Your task to perform on an android device: toggle wifi Image 0: 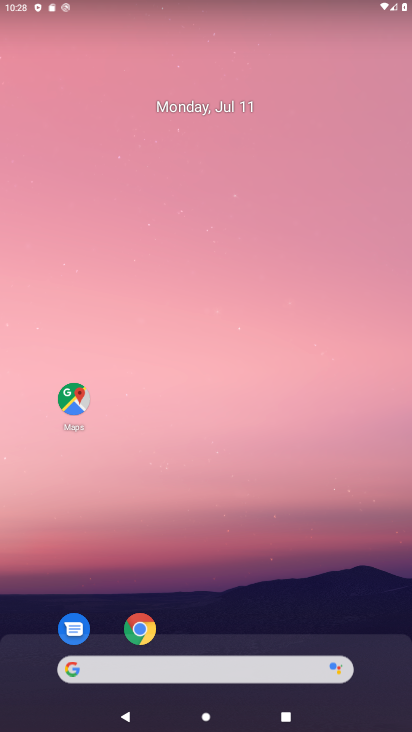
Step 0: drag from (177, 675) to (332, 44)
Your task to perform on an android device: toggle wifi Image 1: 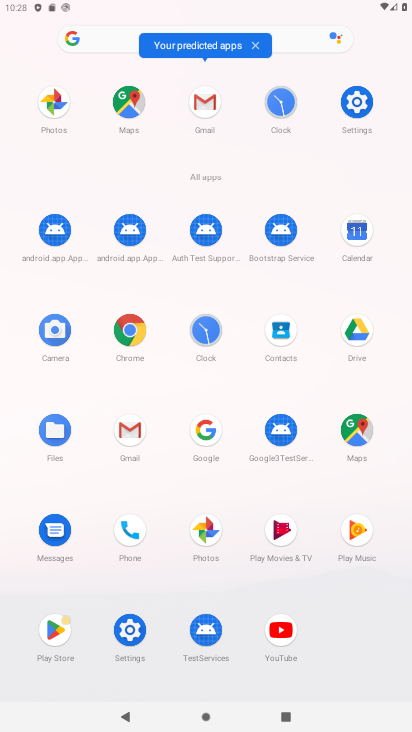
Step 1: click (124, 637)
Your task to perform on an android device: toggle wifi Image 2: 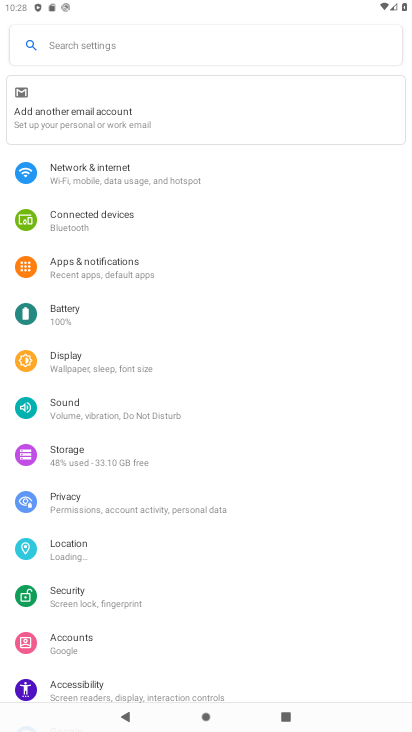
Step 2: click (142, 182)
Your task to perform on an android device: toggle wifi Image 3: 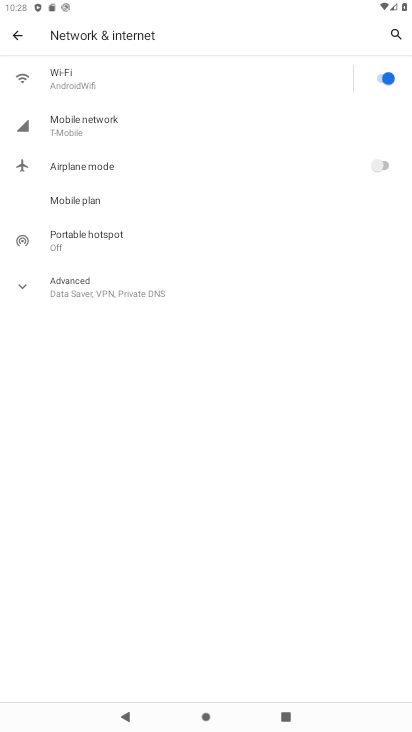
Step 3: click (129, 81)
Your task to perform on an android device: toggle wifi Image 4: 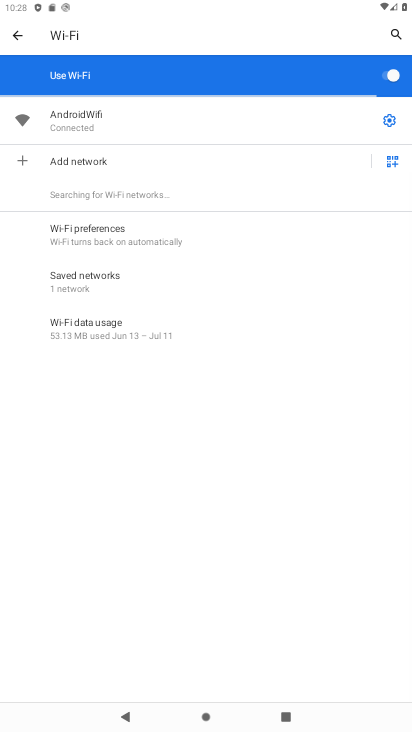
Step 4: click (378, 75)
Your task to perform on an android device: toggle wifi Image 5: 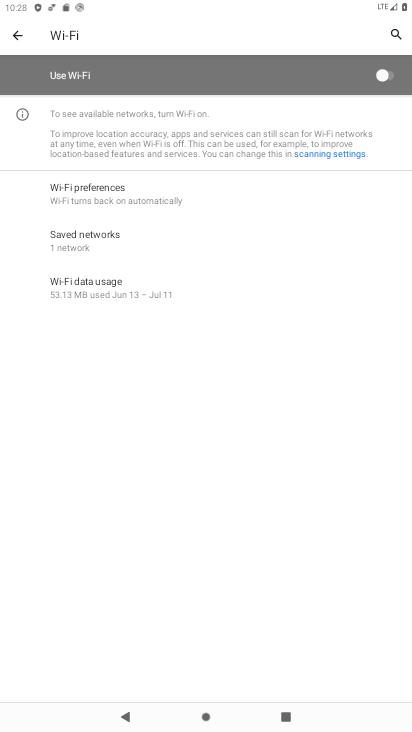
Step 5: task complete